Your task to perform on an android device: open app "Yahoo Mail" (install if not already installed) Image 0: 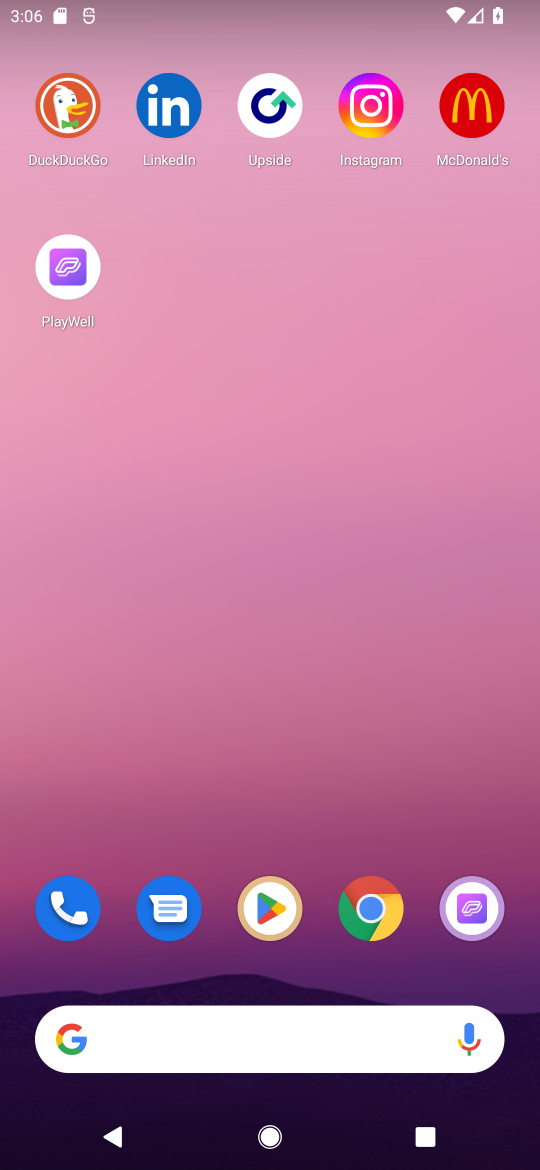
Step 0: click (267, 907)
Your task to perform on an android device: open app "Yahoo Mail" (install if not already installed) Image 1: 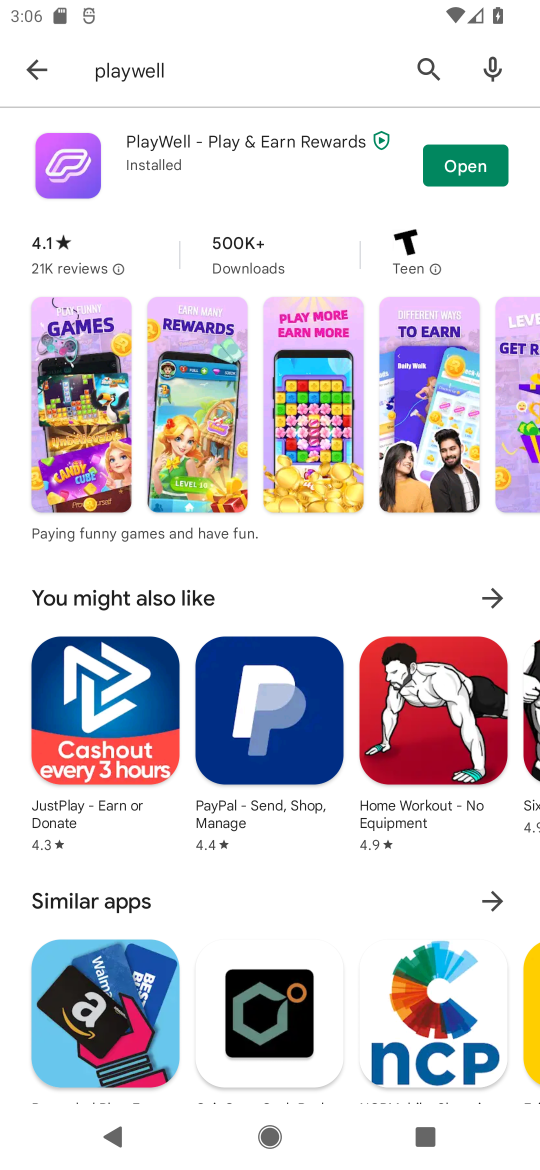
Step 1: click (418, 65)
Your task to perform on an android device: open app "Yahoo Mail" (install if not already installed) Image 2: 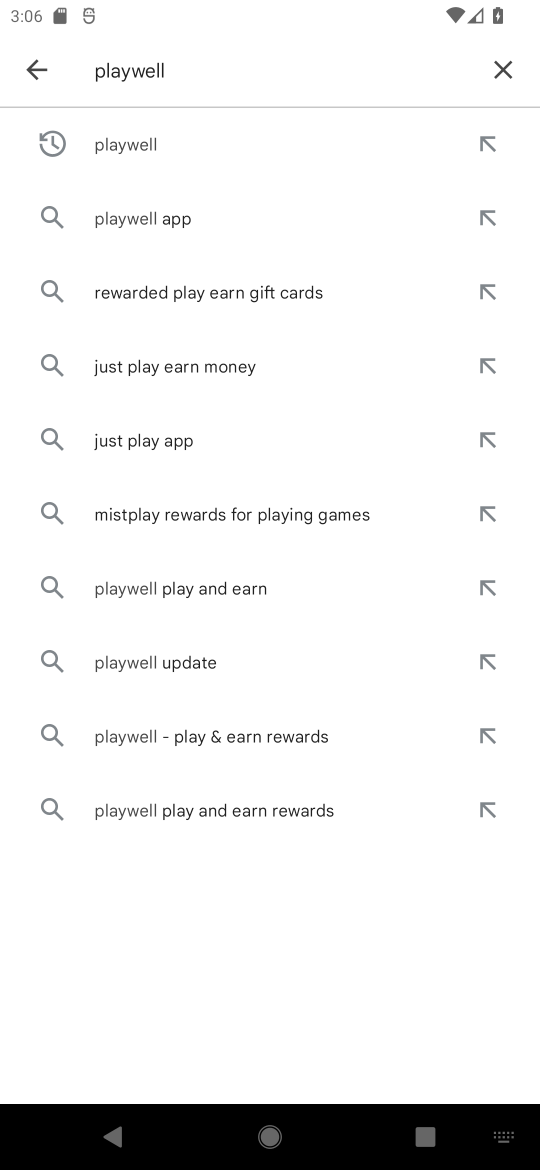
Step 2: click (498, 70)
Your task to perform on an android device: open app "Yahoo Mail" (install if not already installed) Image 3: 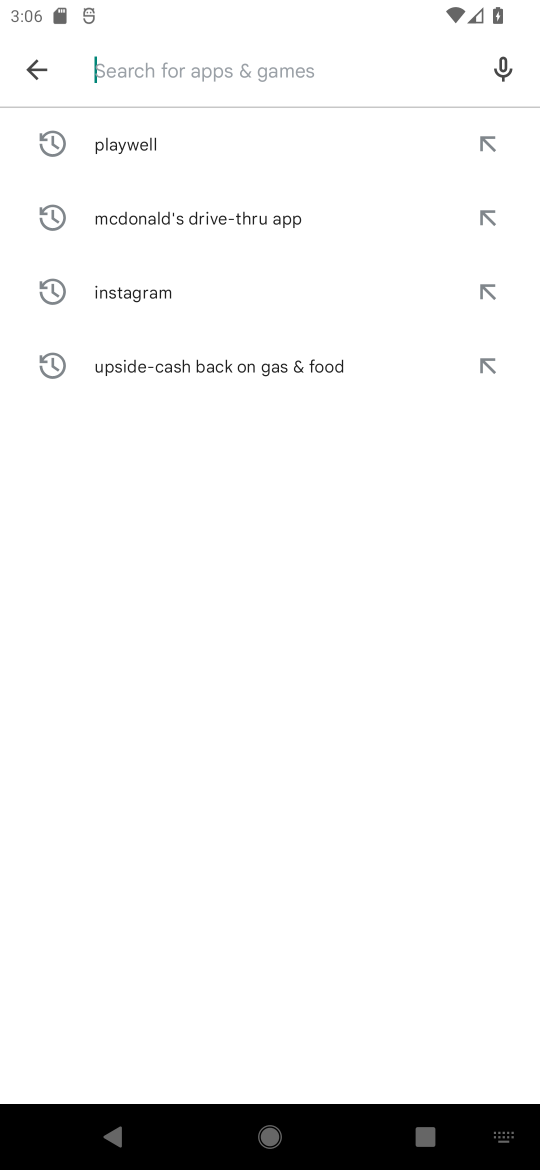
Step 3: type "Yahoo Mail"
Your task to perform on an android device: open app "Yahoo Mail" (install if not already installed) Image 4: 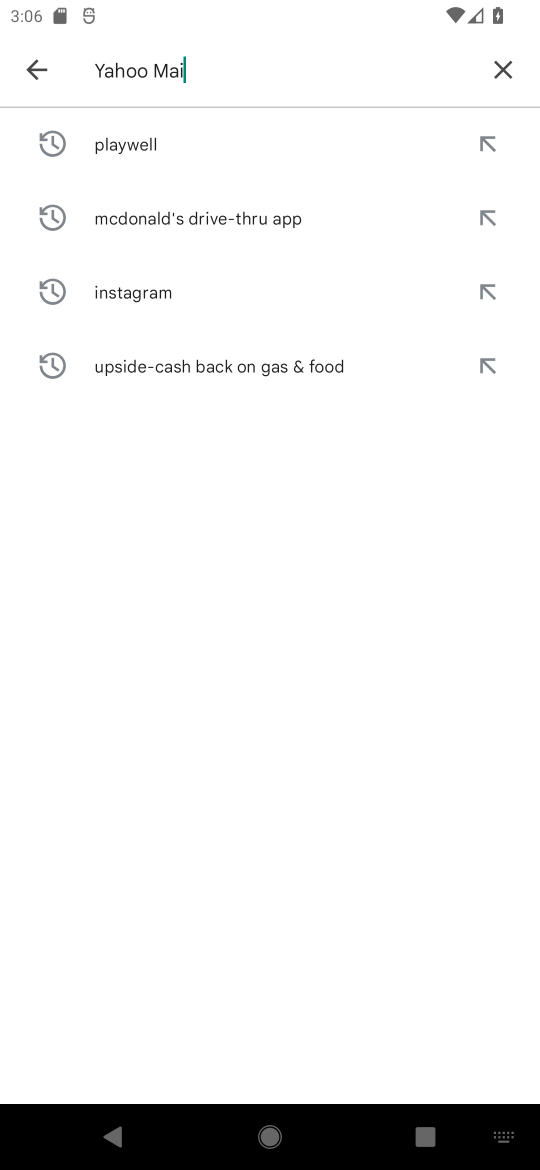
Step 4: type ""
Your task to perform on an android device: open app "Yahoo Mail" (install if not already installed) Image 5: 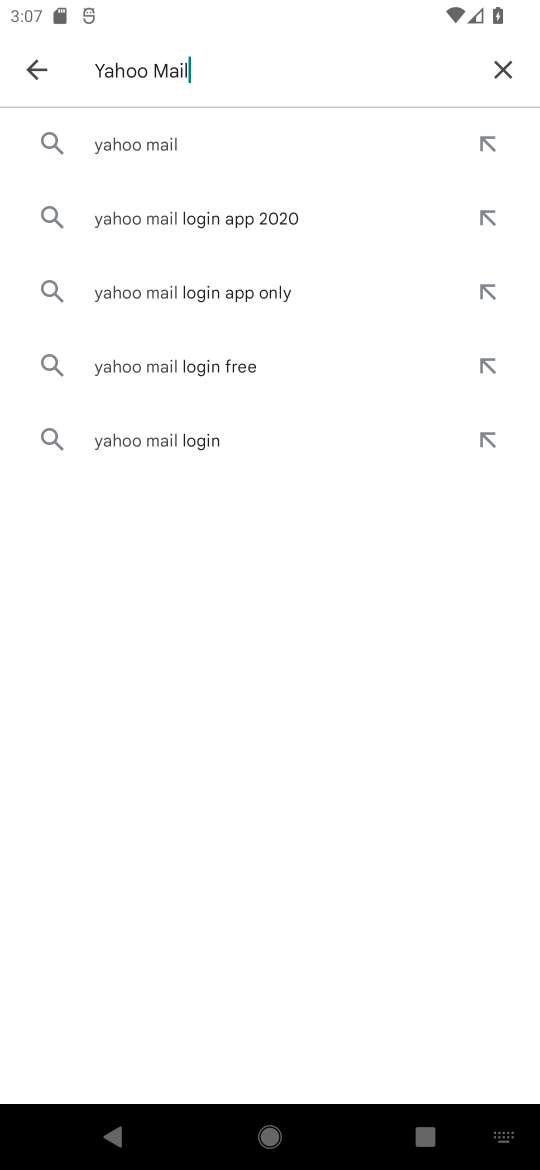
Step 5: click (113, 159)
Your task to perform on an android device: open app "Yahoo Mail" (install if not already installed) Image 6: 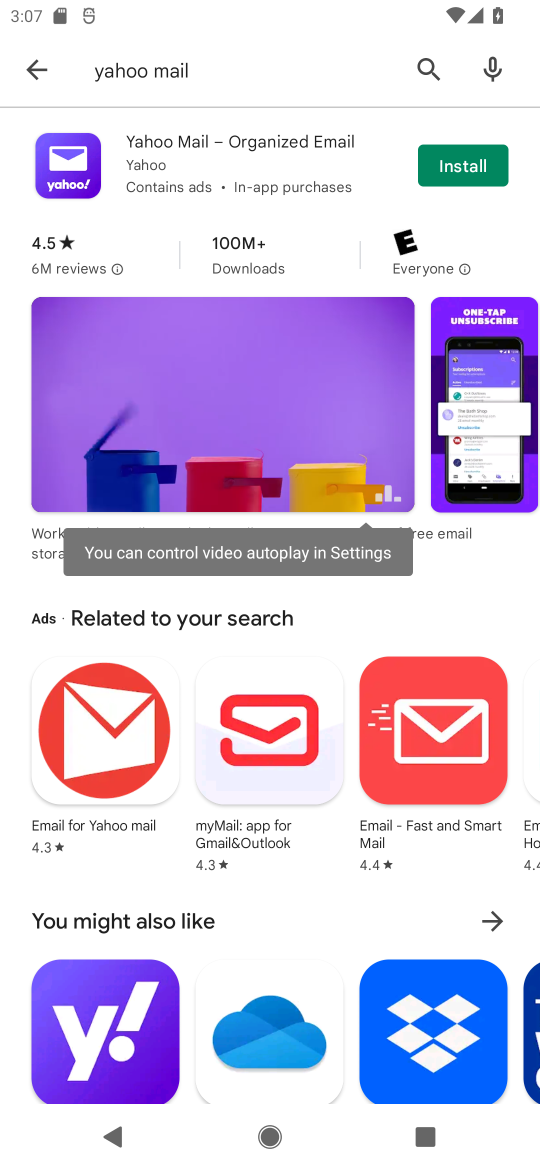
Step 6: click (454, 177)
Your task to perform on an android device: open app "Yahoo Mail" (install if not already installed) Image 7: 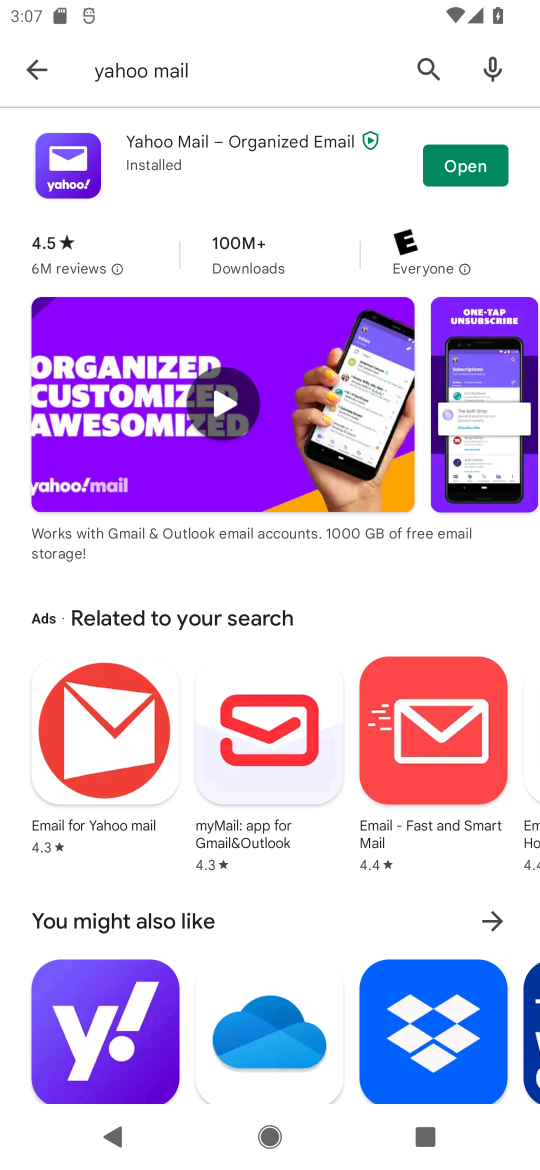
Step 7: click (454, 177)
Your task to perform on an android device: open app "Yahoo Mail" (install if not already installed) Image 8: 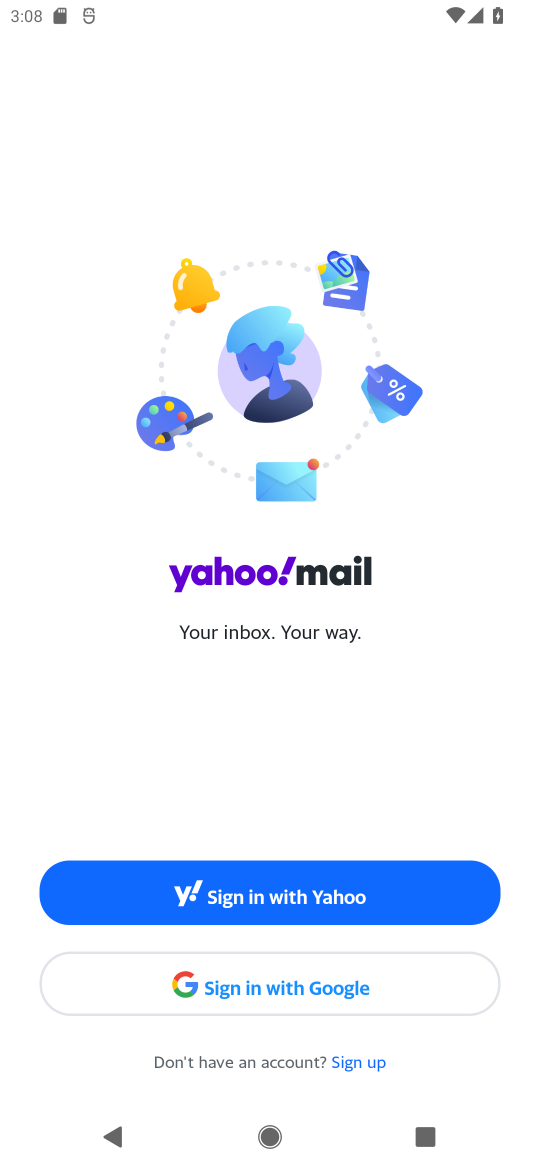
Step 8: task complete